Your task to perform on an android device: Open calendar and show me the third week of next month Image 0: 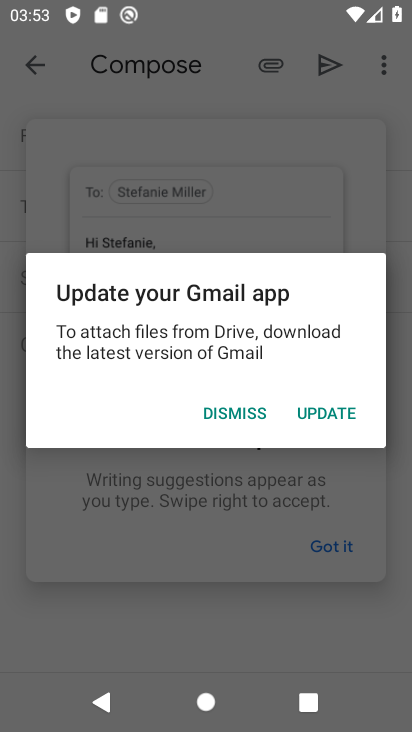
Step 0: press home button
Your task to perform on an android device: Open calendar and show me the third week of next month Image 1: 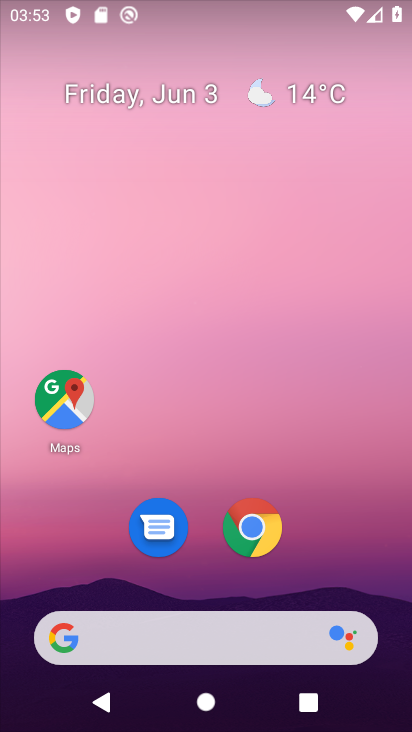
Step 1: drag from (347, 566) to (277, 10)
Your task to perform on an android device: Open calendar and show me the third week of next month Image 2: 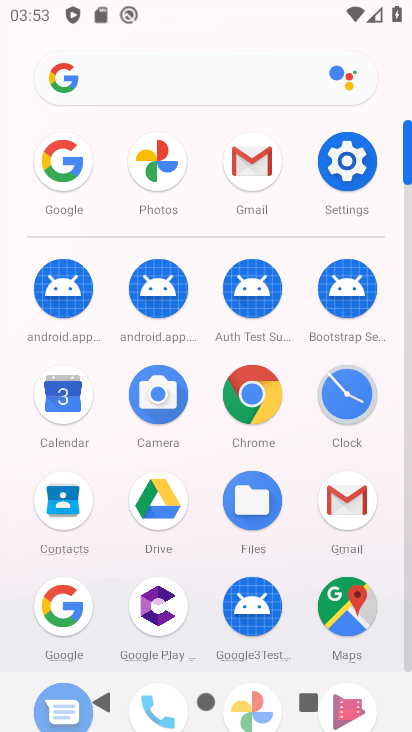
Step 2: click (65, 396)
Your task to perform on an android device: Open calendar and show me the third week of next month Image 3: 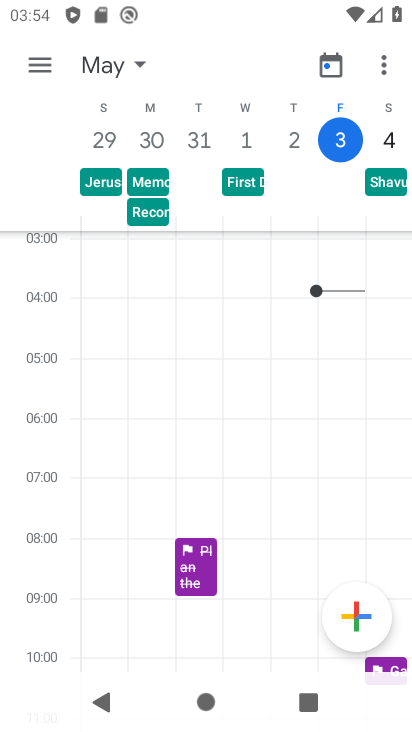
Step 3: click (335, 68)
Your task to perform on an android device: Open calendar and show me the third week of next month Image 4: 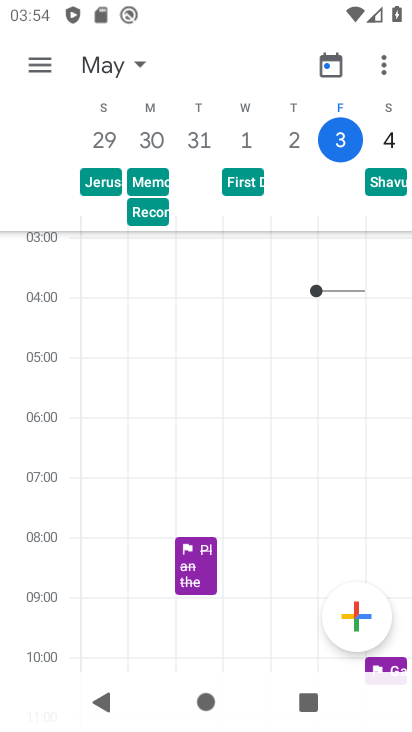
Step 4: click (335, 68)
Your task to perform on an android device: Open calendar and show me the third week of next month Image 5: 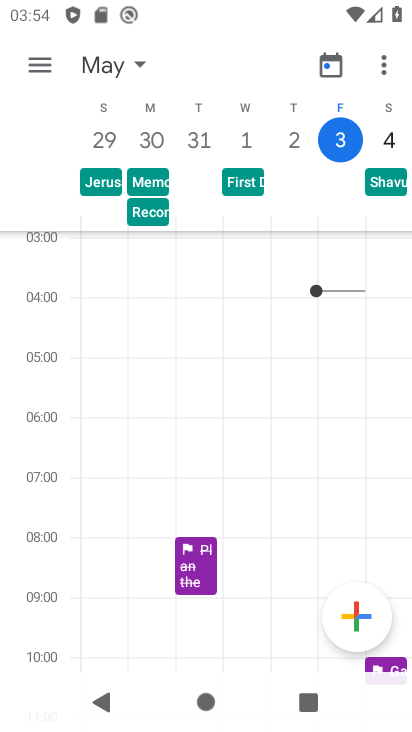
Step 5: click (330, 67)
Your task to perform on an android device: Open calendar and show me the third week of next month Image 6: 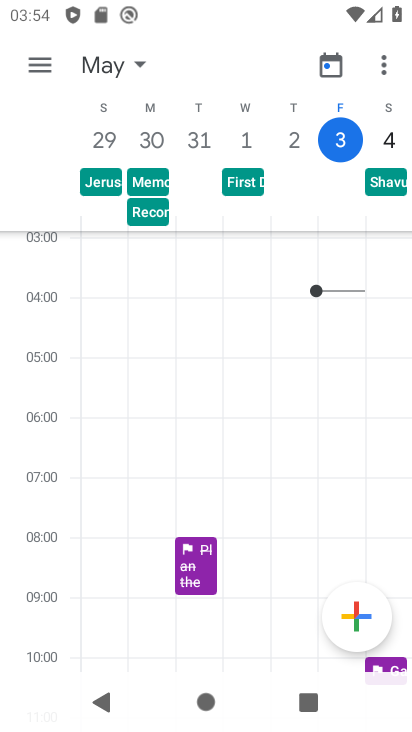
Step 6: click (137, 65)
Your task to perform on an android device: Open calendar and show me the third week of next month Image 7: 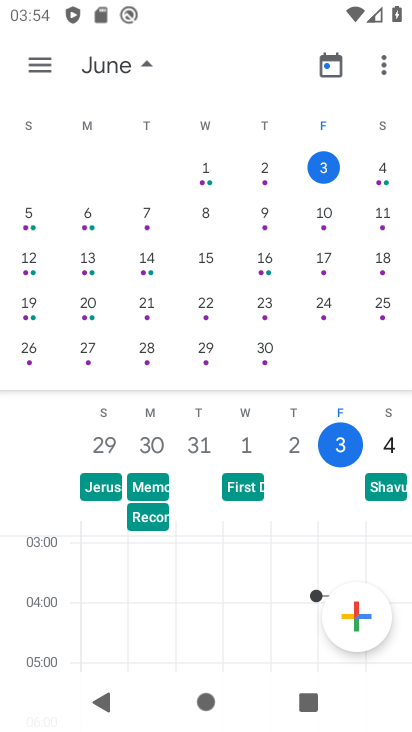
Step 7: drag from (360, 276) to (0, 301)
Your task to perform on an android device: Open calendar and show me the third week of next month Image 8: 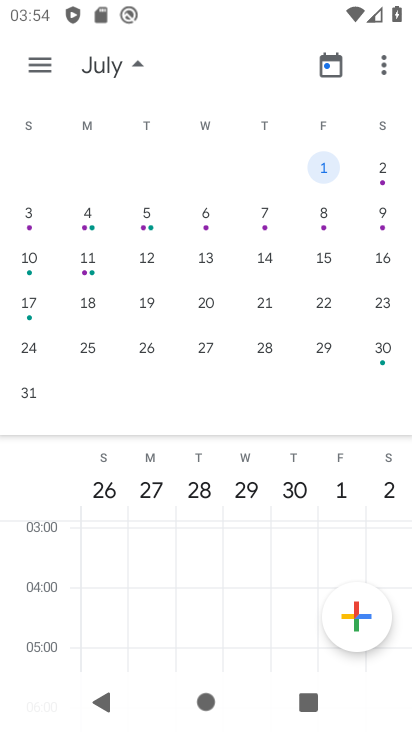
Step 8: click (78, 303)
Your task to perform on an android device: Open calendar and show me the third week of next month Image 9: 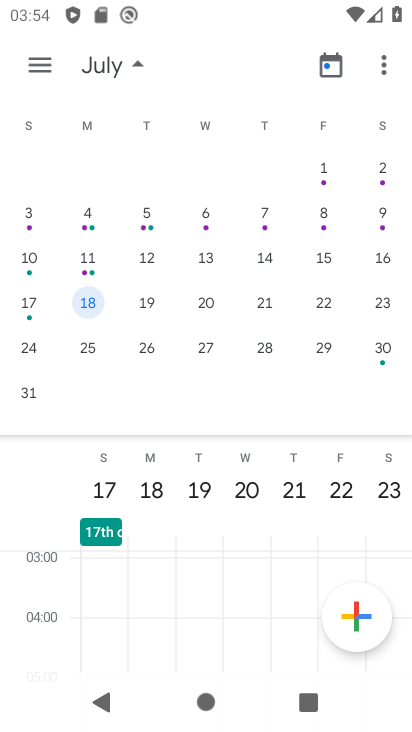
Step 9: click (43, 66)
Your task to perform on an android device: Open calendar and show me the third week of next month Image 10: 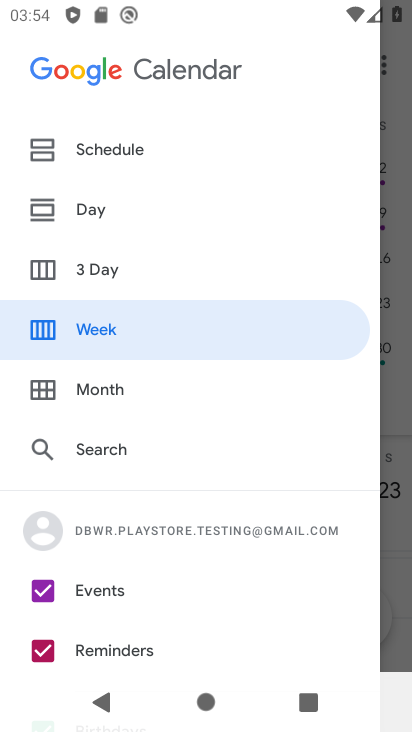
Step 10: click (114, 323)
Your task to perform on an android device: Open calendar and show me the third week of next month Image 11: 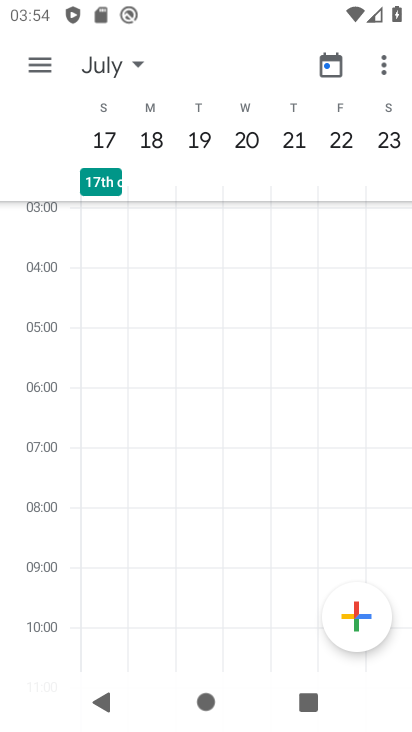
Step 11: task complete